Your task to perform on an android device: change notifications settings Image 0: 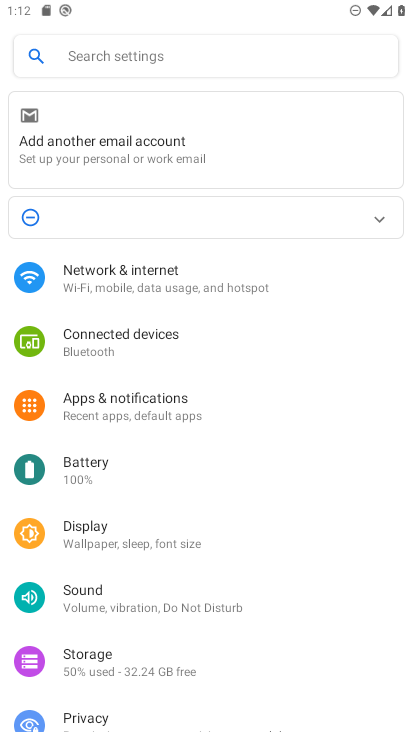
Step 0: press home button
Your task to perform on an android device: change notifications settings Image 1: 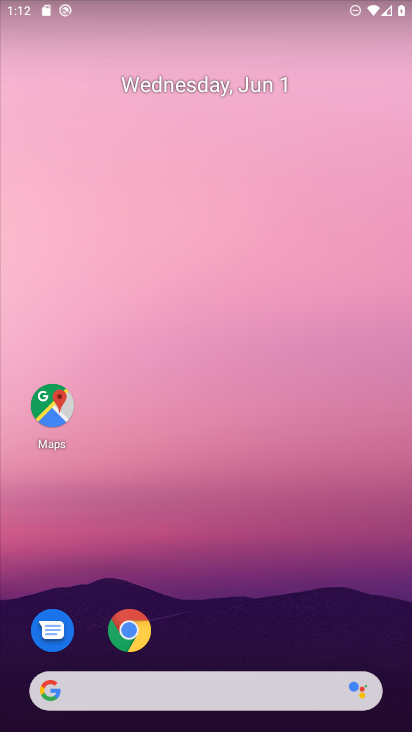
Step 1: drag from (263, 629) to (269, 297)
Your task to perform on an android device: change notifications settings Image 2: 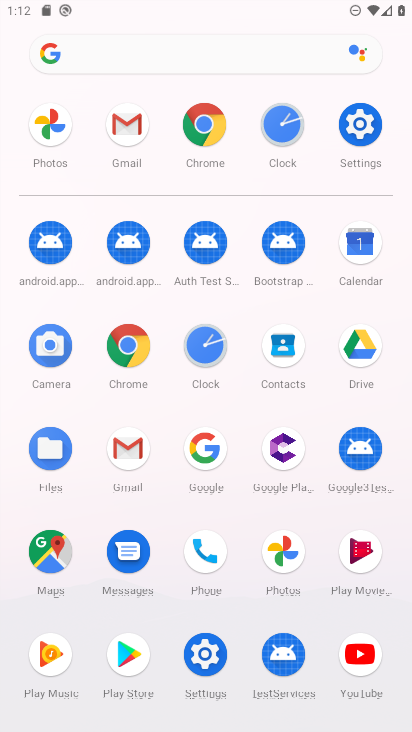
Step 2: click (365, 137)
Your task to perform on an android device: change notifications settings Image 3: 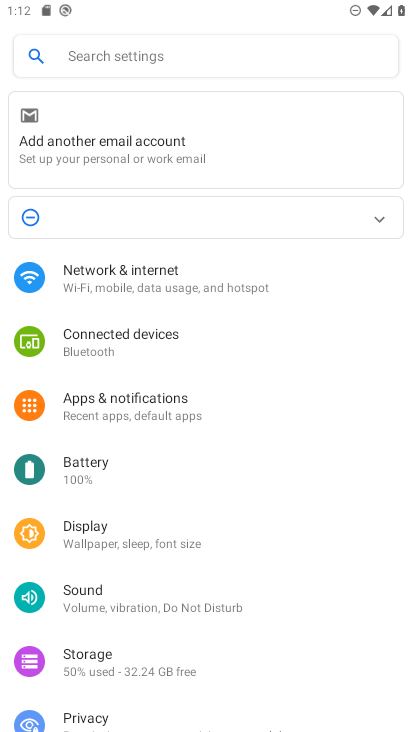
Step 3: click (111, 404)
Your task to perform on an android device: change notifications settings Image 4: 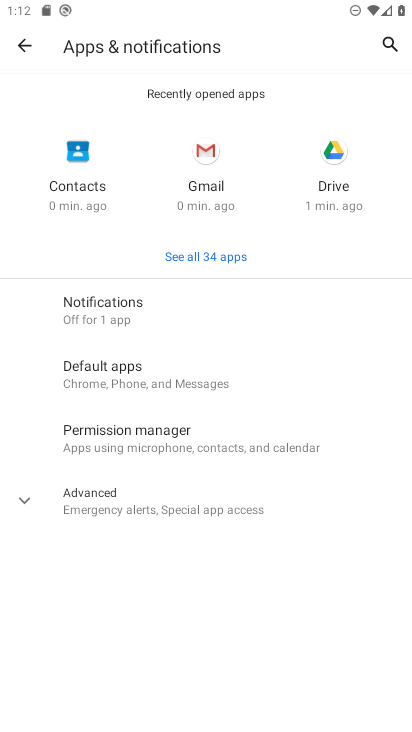
Step 4: click (114, 315)
Your task to perform on an android device: change notifications settings Image 5: 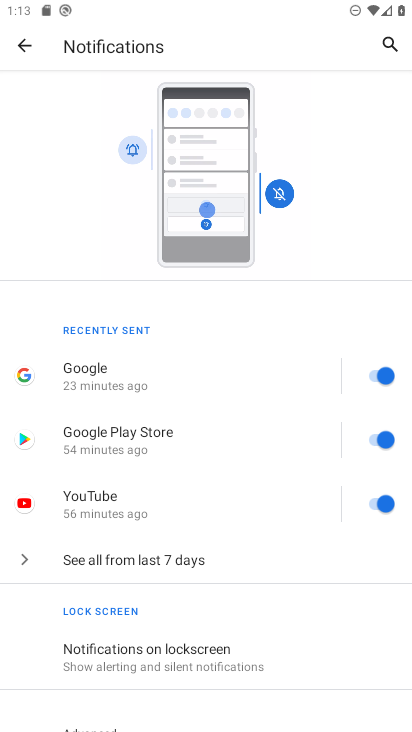
Step 5: drag from (361, 640) to (348, 474)
Your task to perform on an android device: change notifications settings Image 6: 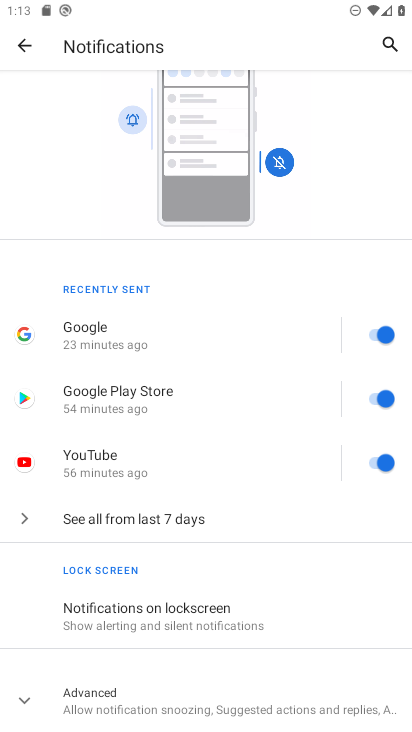
Step 6: click (386, 465)
Your task to perform on an android device: change notifications settings Image 7: 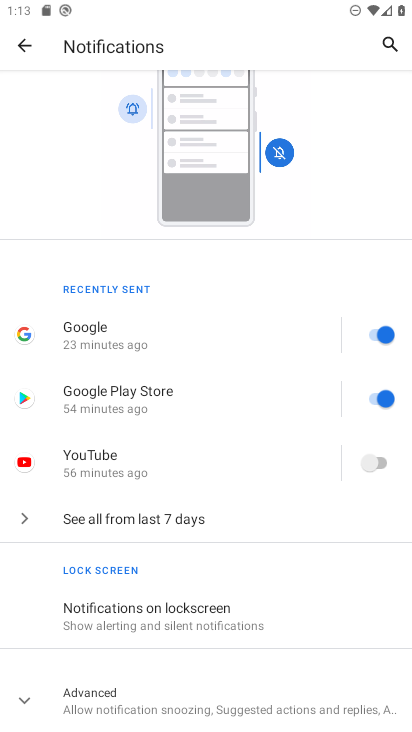
Step 7: task complete